Your task to perform on an android device: open app "Spotify: Music and Podcasts" Image 0: 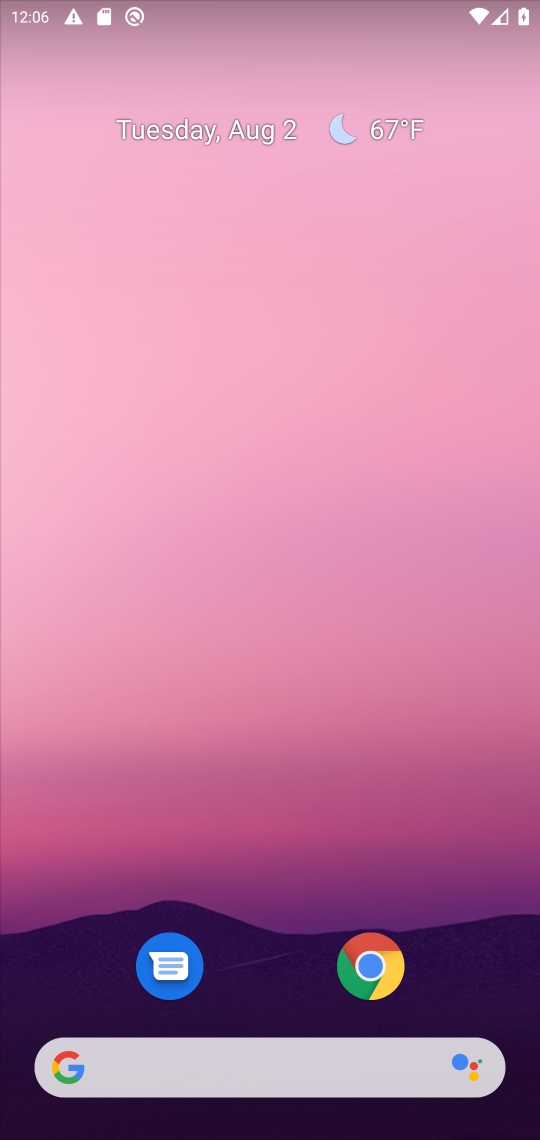
Step 0: press home button
Your task to perform on an android device: open app "Spotify: Music and Podcasts" Image 1: 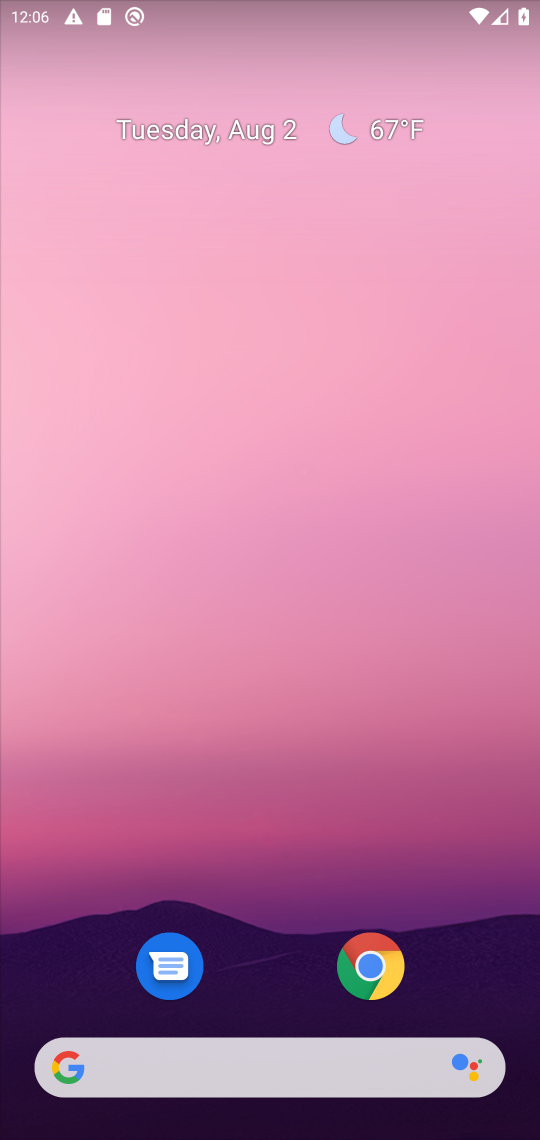
Step 1: drag from (449, 954) to (407, 104)
Your task to perform on an android device: open app "Spotify: Music and Podcasts" Image 2: 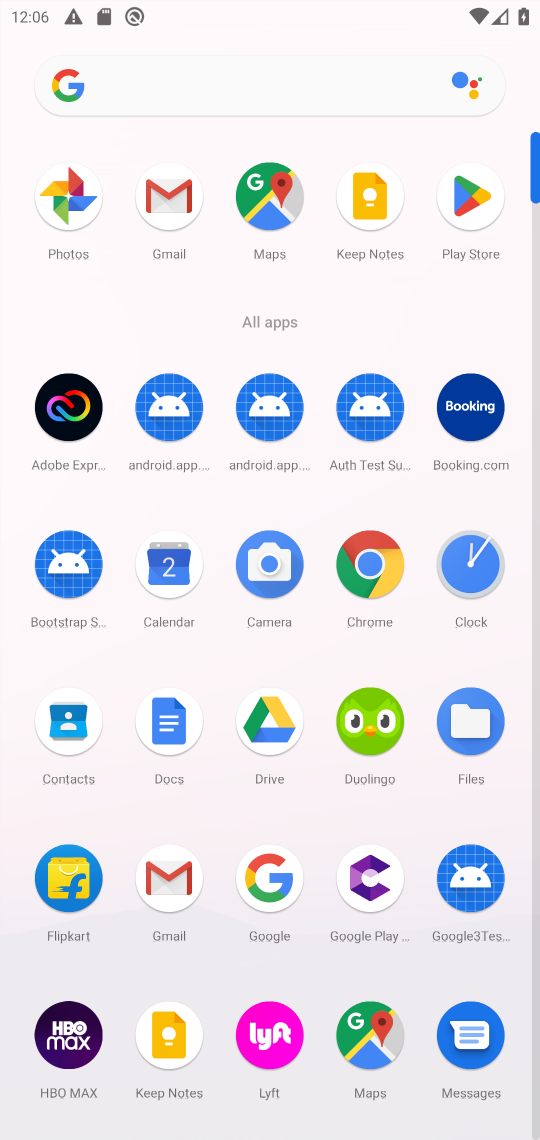
Step 2: click (471, 194)
Your task to perform on an android device: open app "Spotify: Music and Podcasts" Image 3: 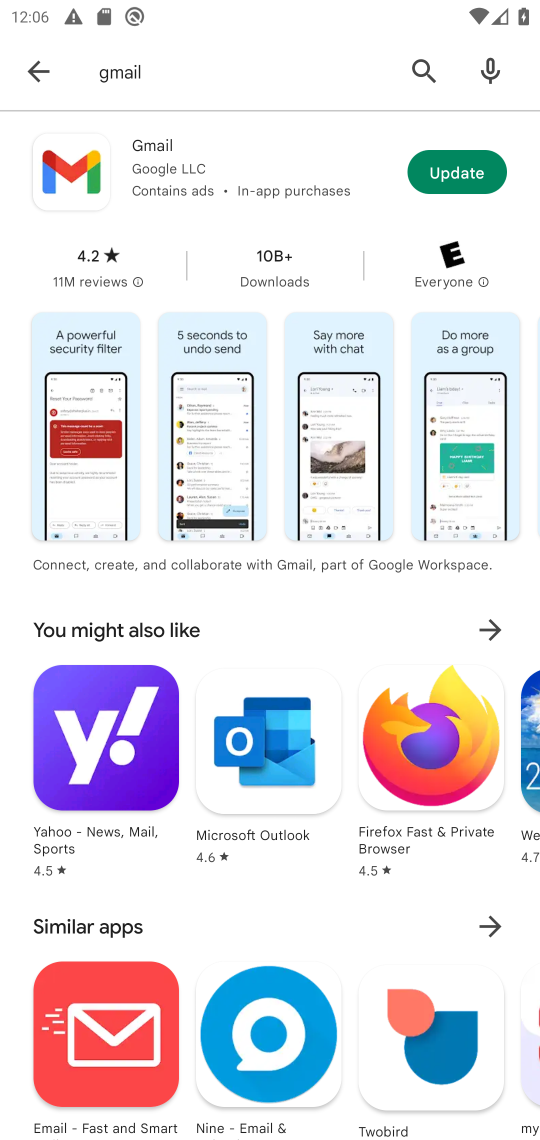
Step 3: click (421, 61)
Your task to perform on an android device: open app "Spotify: Music and Podcasts" Image 4: 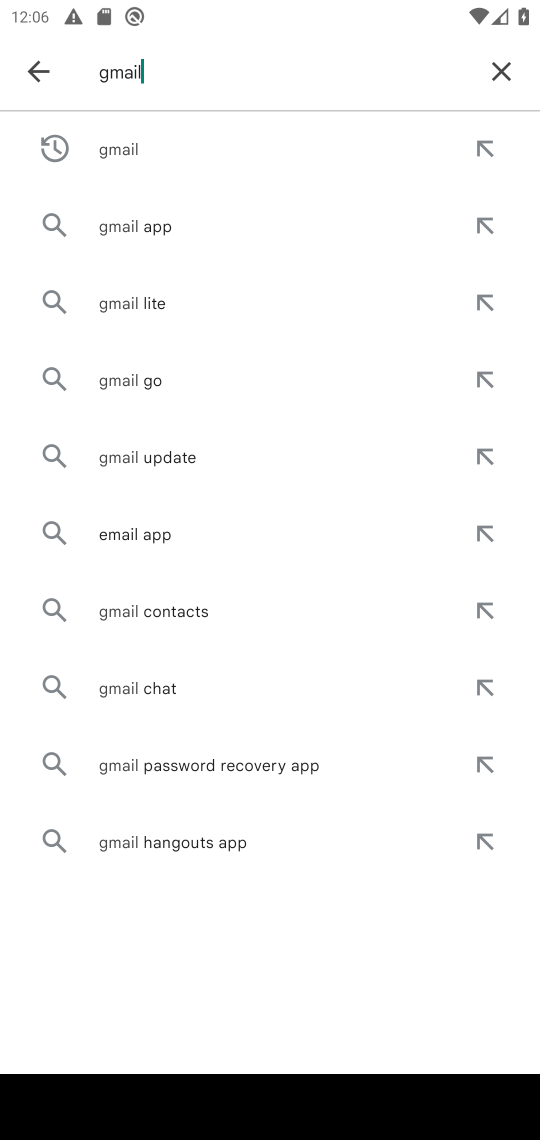
Step 4: click (497, 69)
Your task to perform on an android device: open app "Spotify: Music and Podcasts" Image 5: 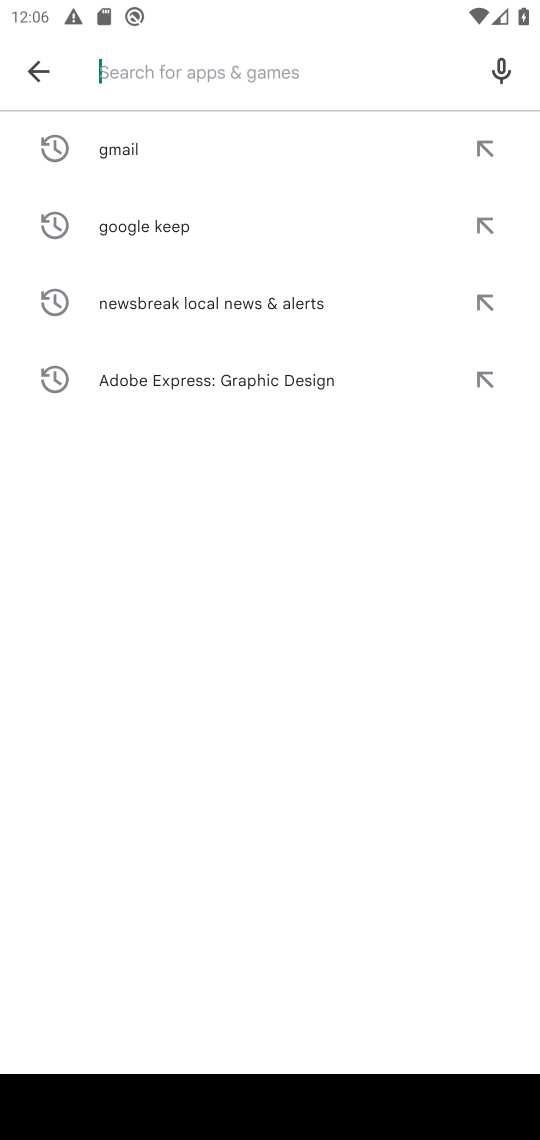
Step 5: click (315, 73)
Your task to perform on an android device: open app "Spotify: Music and Podcasts" Image 6: 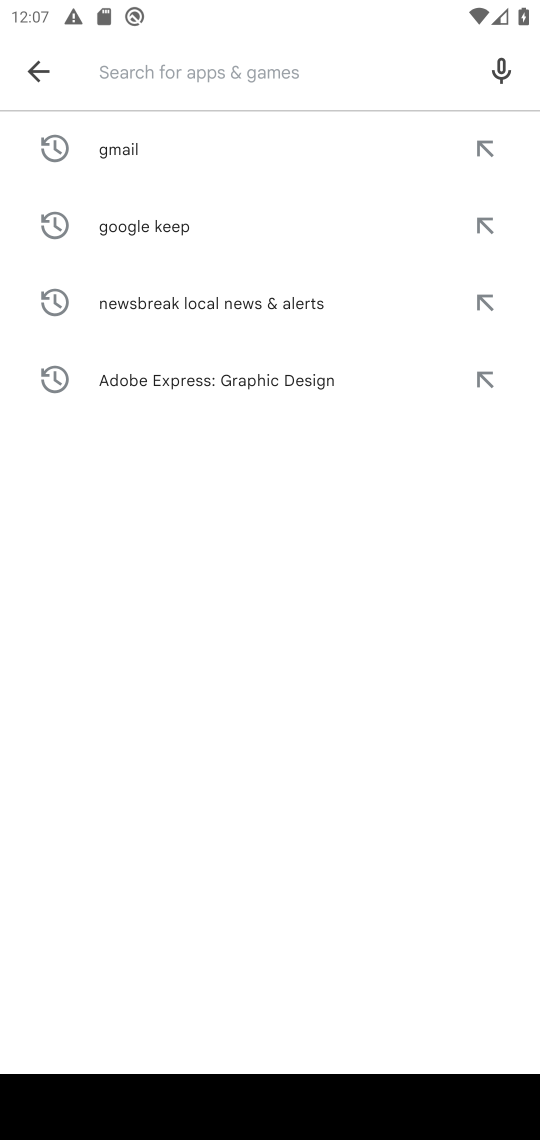
Step 6: type "Spotify: Music and Podcasts"
Your task to perform on an android device: open app "Spotify: Music and Podcasts" Image 7: 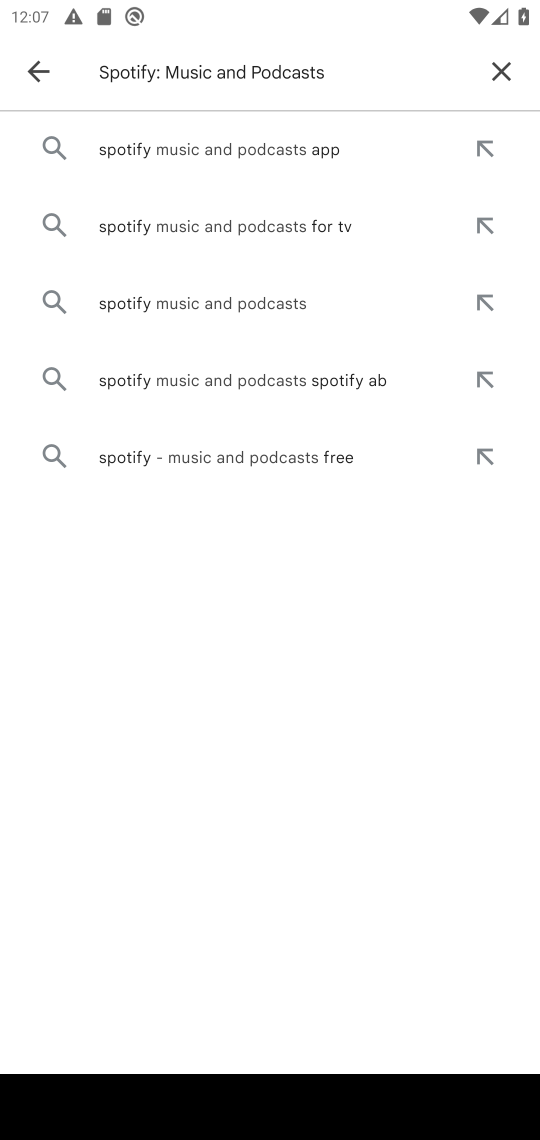
Step 7: click (283, 143)
Your task to perform on an android device: open app "Spotify: Music and Podcasts" Image 8: 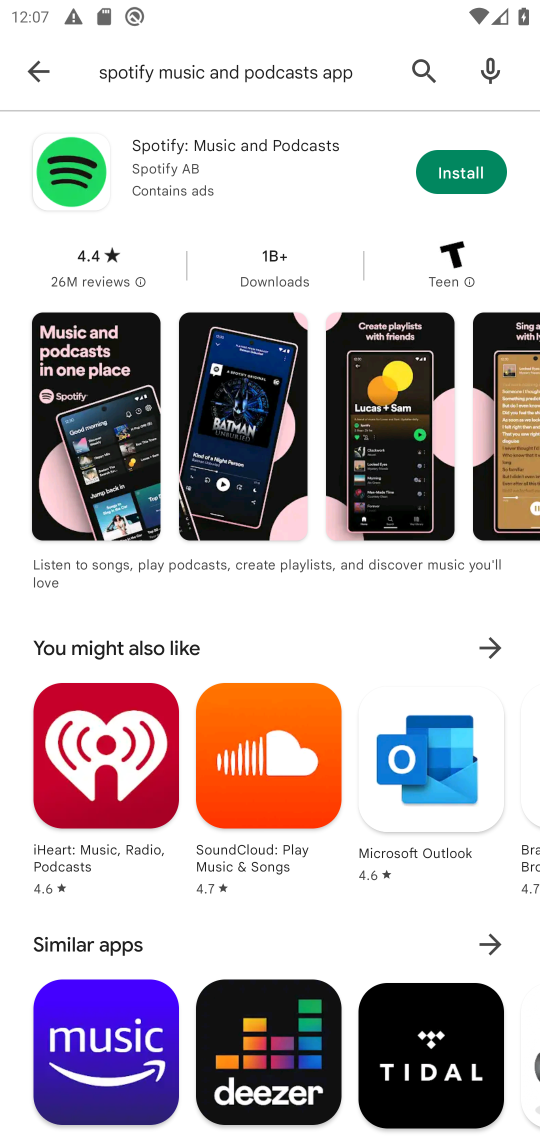
Step 8: task complete